Your task to perform on an android device: turn on notifications settings in the gmail app Image 0: 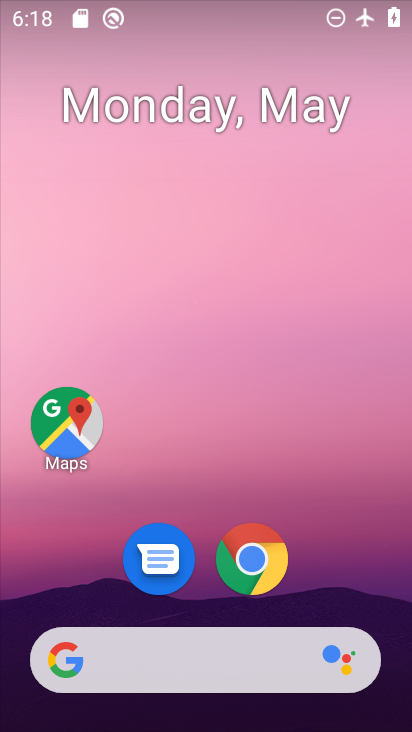
Step 0: drag from (302, 475) to (259, 25)
Your task to perform on an android device: turn on notifications settings in the gmail app Image 1: 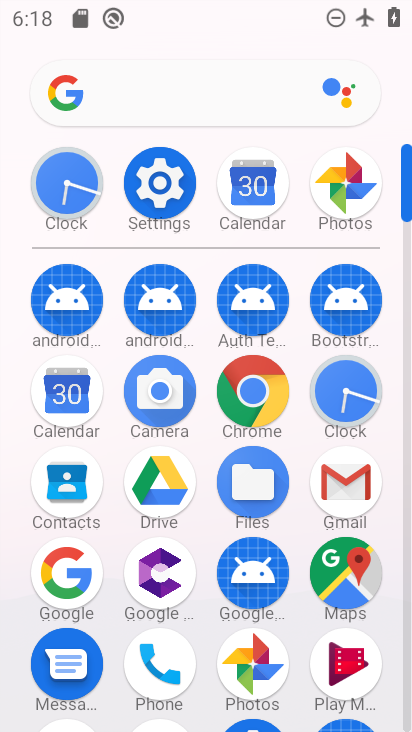
Step 1: click (341, 489)
Your task to perform on an android device: turn on notifications settings in the gmail app Image 2: 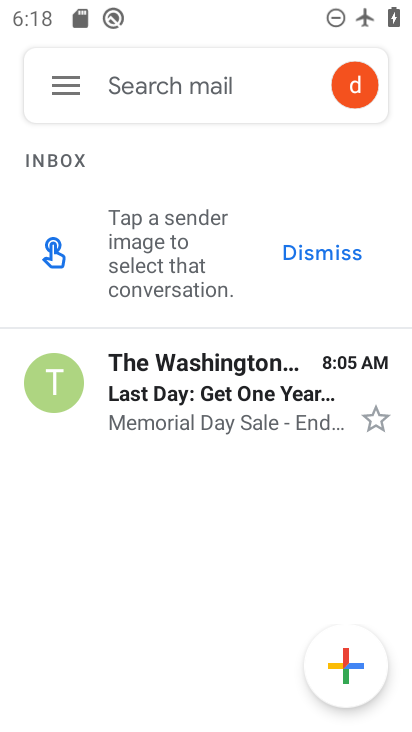
Step 2: click (53, 70)
Your task to perform on an android device: turn on notifications settings in the gmail app Image 3: 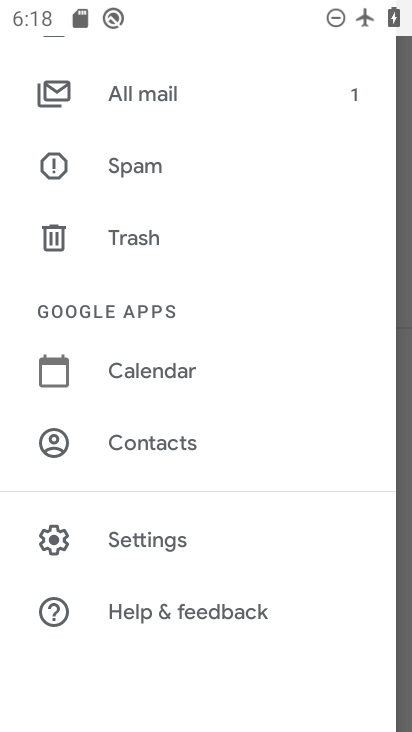
Step 3: click (147, 535)
Your task to perform on an android device: turn on notifications settings in the gmail app Image 4: 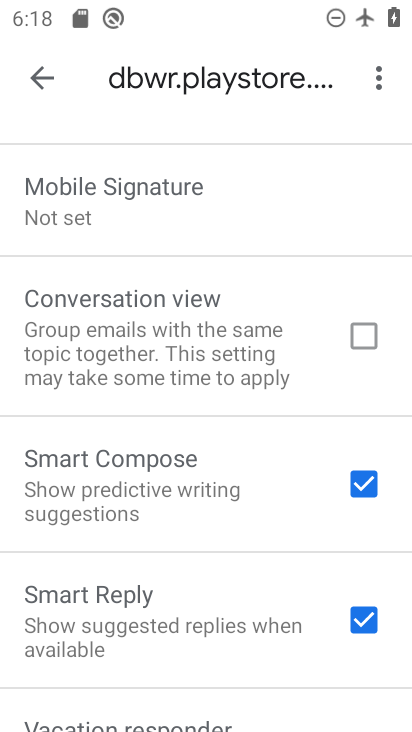
Step 4: click (37, 72)
Your task to perform on an android device: turn on notifications settings in the gmail app Image 5: 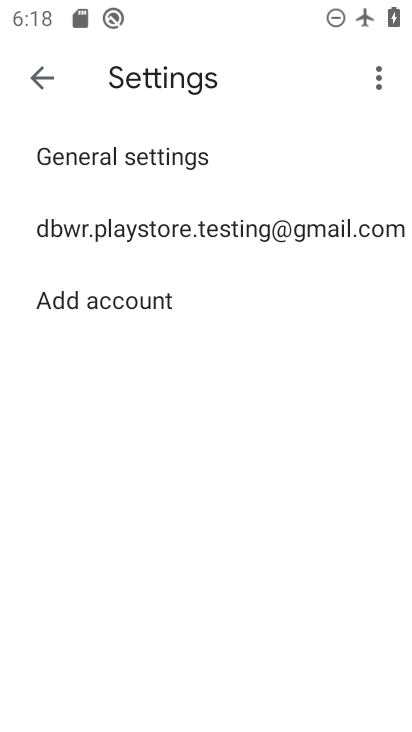
Step 5: click (104, 153)
Your task to perform on an android device: turn on notifications settings in the gmail app Image 6: 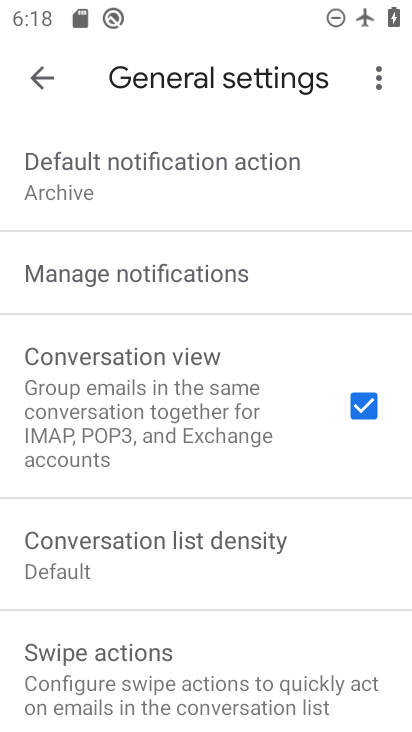
Step 6: click (143, 279)
Your task to perform on an android device: turn on notifications settings in the gmail app Image 7: 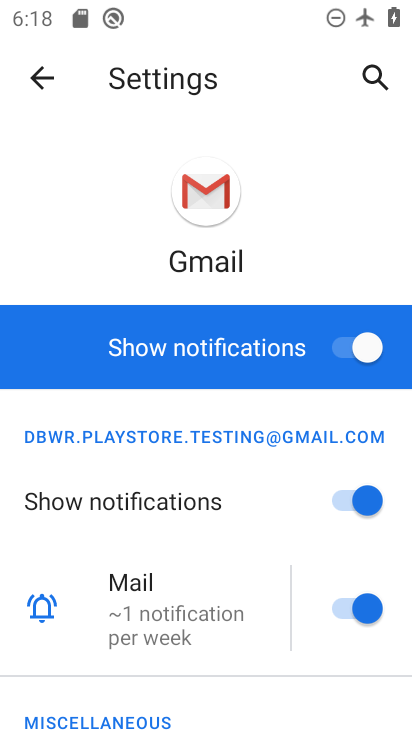
Step 7: task complete